Your task to perform on an android device: Go to Reddit.com Image 0: 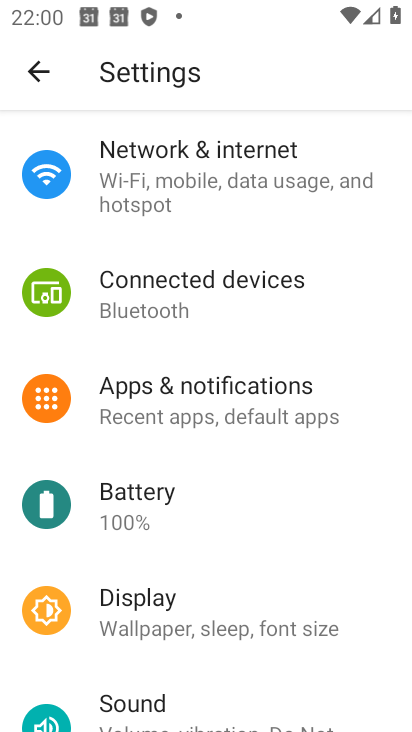
Step 0: press home button
Your task to perform on an android device: Go to Reddit.com Image 1: 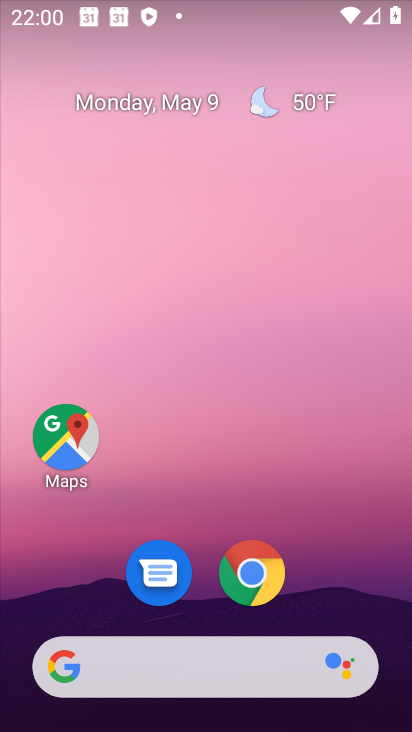
Step 1: click (247, 574)
Your task to perform on an android device: Go to Reddit.com Image 2: 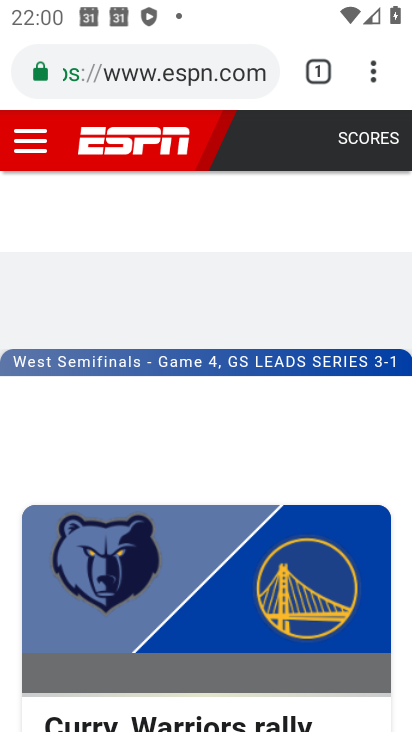
Step 2: click (145, 74)
Your task to perform on an android device: Go to Reddit.com Image 3: 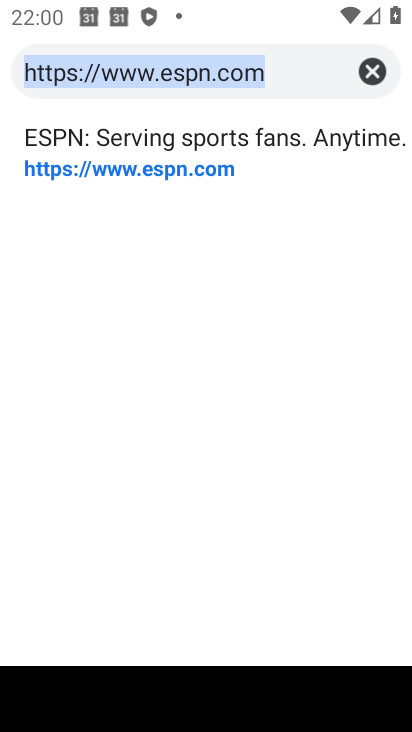
Step 3: type "reddit.com"
Your task to perform on an android device: Go to Reddit.com Image 4: 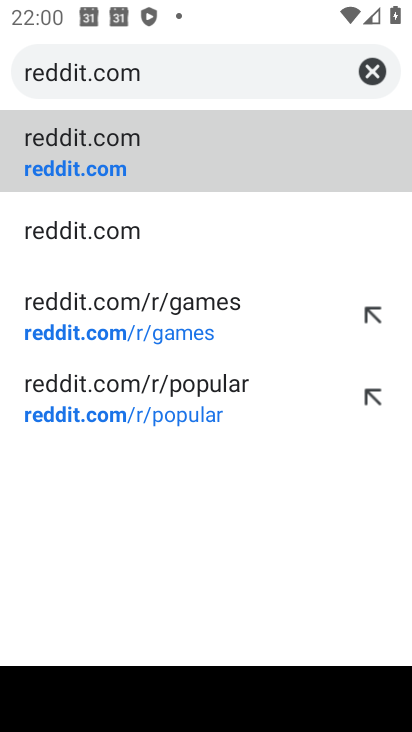
Step 4: click (52, 167)
Your task to perform on an android device: Go to Reddit.com Image 5: 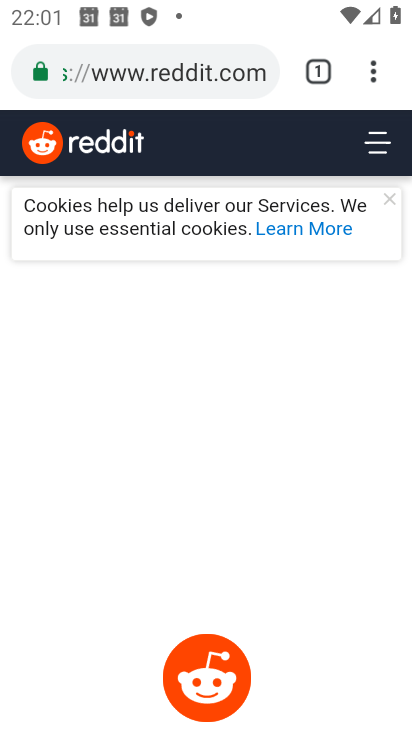
Step 5: task complete